Your task to perform on an android device: Search for sushi restaurants on Maps Image 0: 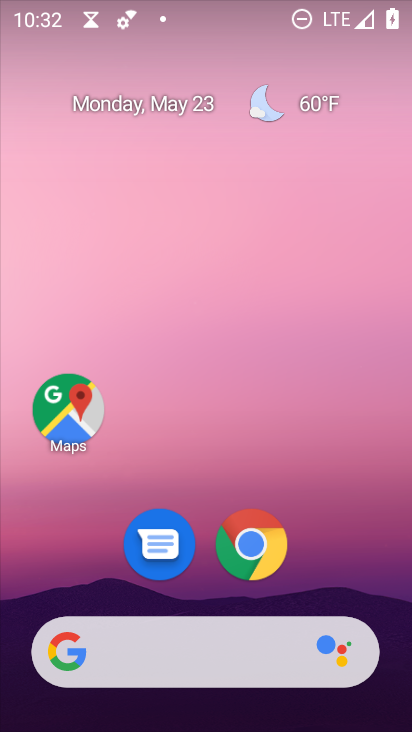
Step 0: click (72, 408)
Your task to perform on an android device: Search for sushi restaurants on Maps Image 1: 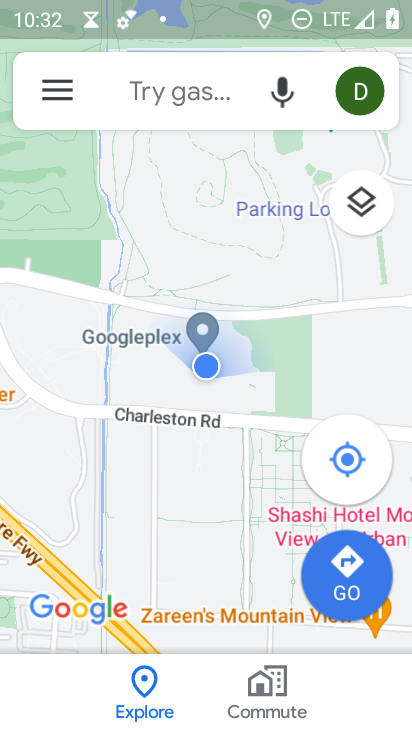
Step 1: click (228, 89)
Your task to perform on an android device: Search for sushi restaurants on Maps Image 2: 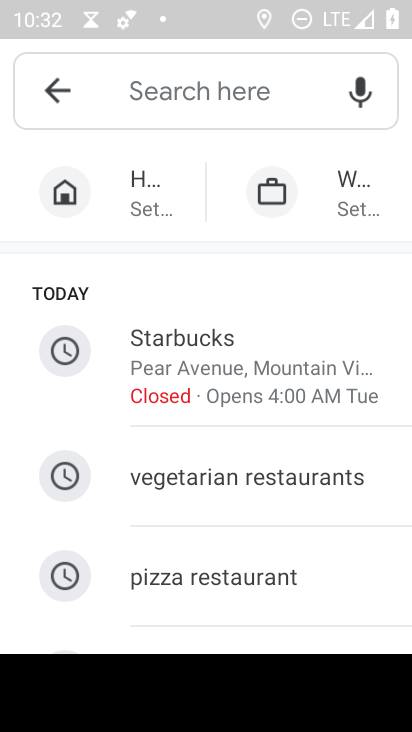
Step 2: drag from (193, 507) to (150, 188)
Your task to perform on an android device: Search for sushi restaurants on Maps Image 3: 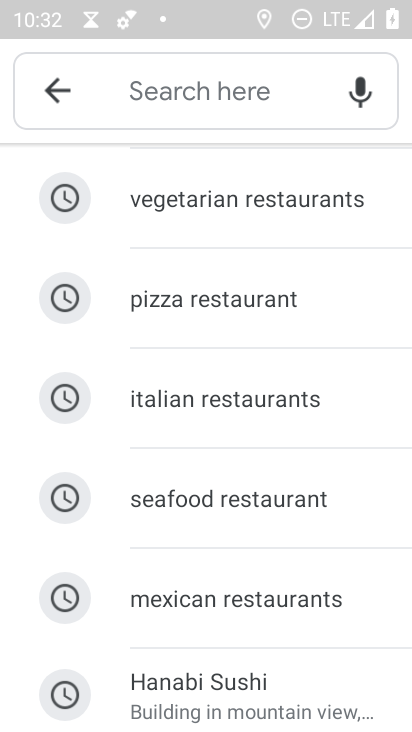
Step 3: drag from (182, 672) to (138, 408)
Your task to perform on an android device: Search for sushi restaurants on Maps Image 4: 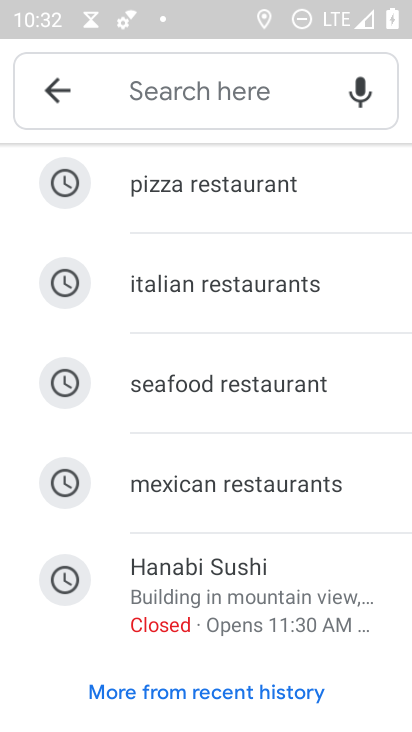
Step 4: click (162, 97)
Your task to perform on an android device: Search for sushi restaurants on Maps Image 5: 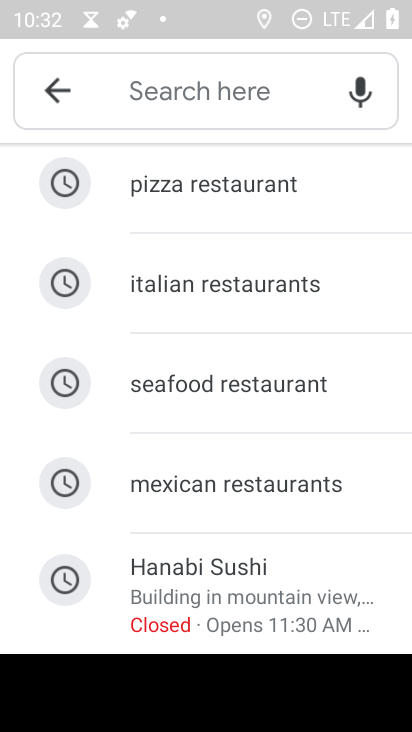
Step 5: type "sushi restaurants"
Your task to perform on an android device: Search for sushi restaurants on Maps Image 6: 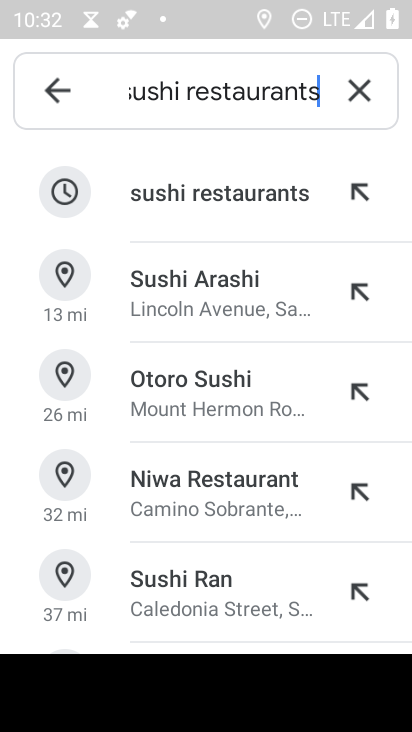
Step 6: click (259, 204)
Your task to perform on an android device: Search for sushi restaurants on Maps Image 7: 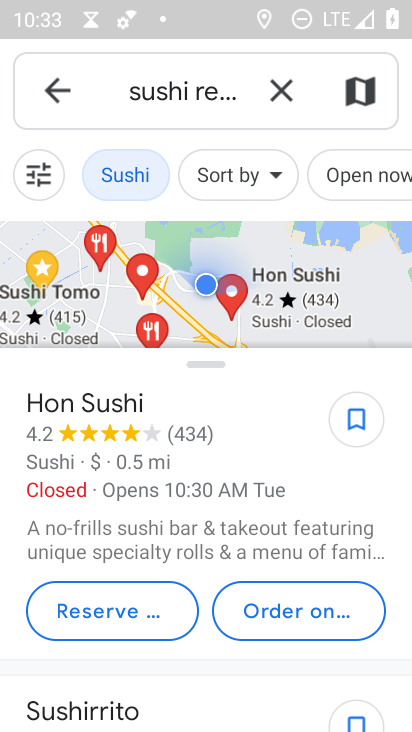
Step 7: task complete